Your task to perform on an android device: clear all cookies in the chrome app Image 0: 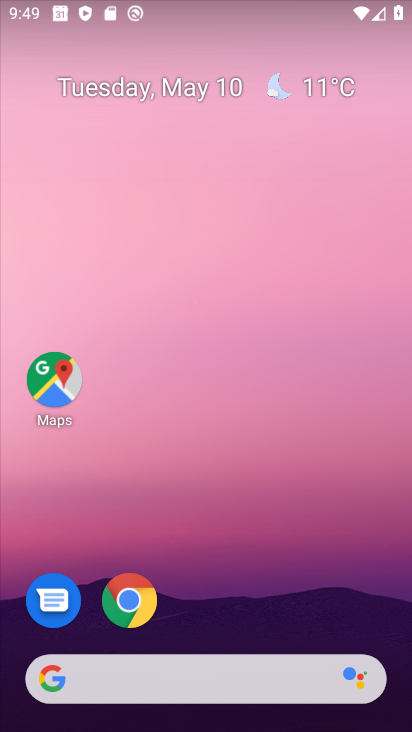
Step 0: drag from (343, 597) to (276, 170)
Your task to perform on an android device: clear all cookies in the chrome app Image 1: 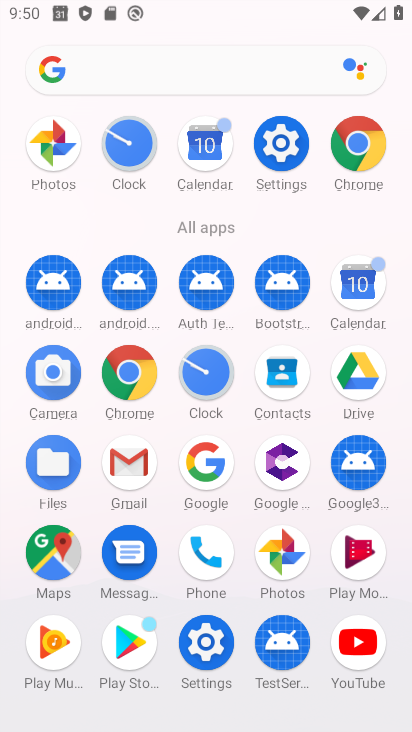
Step 1: click (353, 148)
Your task to perform on an android device: clear all cookies in the chrome app Image 2: 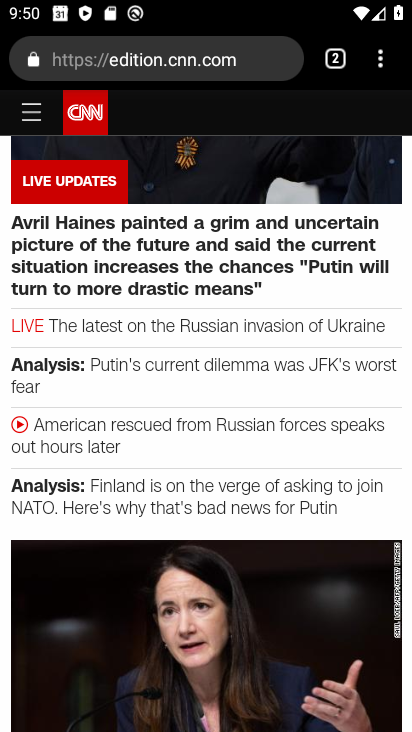
Step 2: drag from (388, 61) to (203, 341)
Your task to perform on an android device: clear all cookies in the chrome app Image 3: 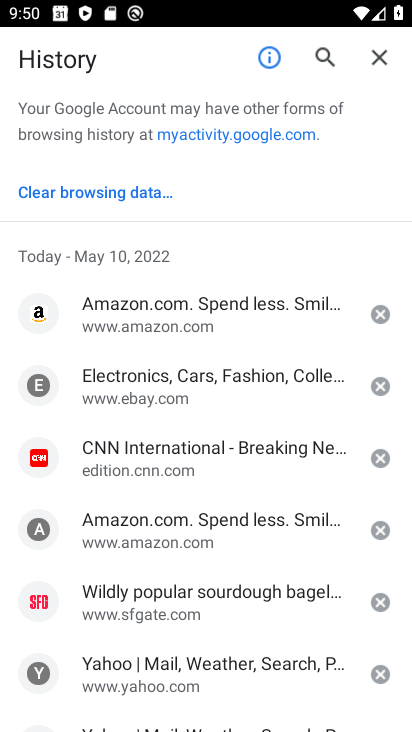
Step 3: click (43, 192)
Your task to perform on an android device: clear all cookies in the chrome app Image 4: 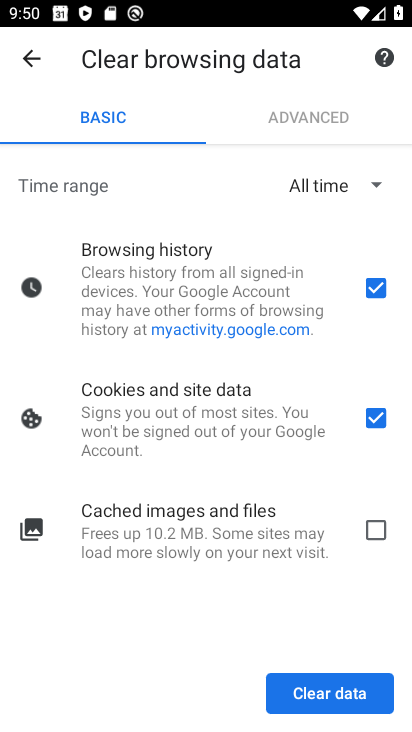
Step 4: click (367, 277)
Your task to perform on an android device: clear all cookies in the chrome app Image 5: 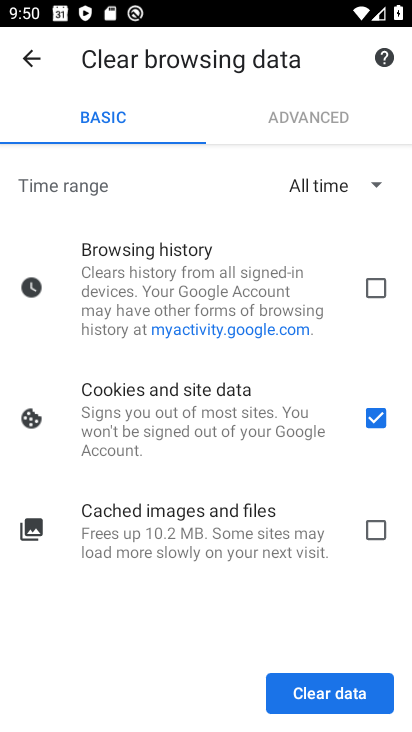
Step 5: click (319, 692)
Your task to perform on an android device: clear all cookies in the chrome app Image 6: 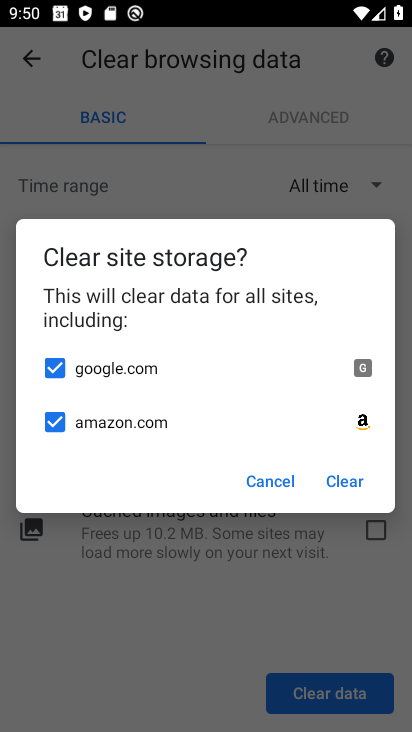
Step 6: click (355, 489)
Your task to perform on an android device: clear all cookies in the chrome app Image 7: 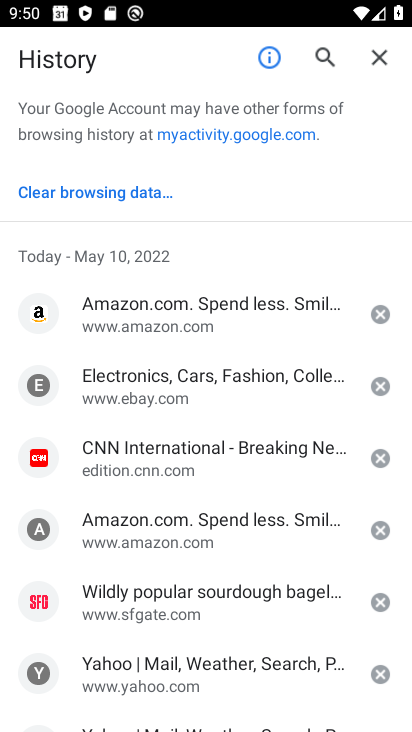
Step 7: task complete